Your task to perform on an android device: open a bookmark in the chrome app Image 0: 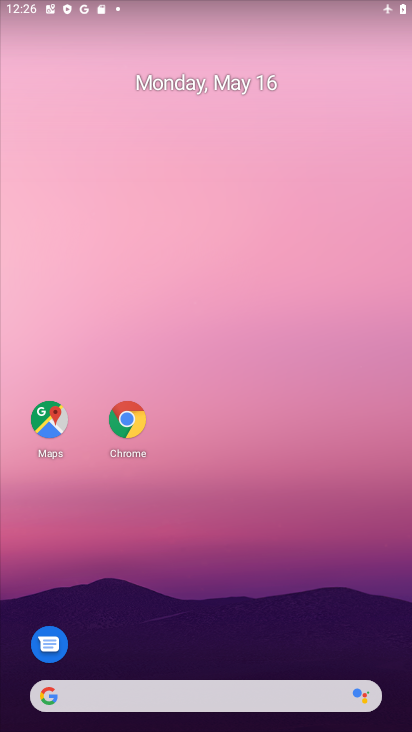
Step 0: drag from (223, 613) to (273, 213)
Your task to perform on an android device: open a bookmark in the chrome app Image 1: 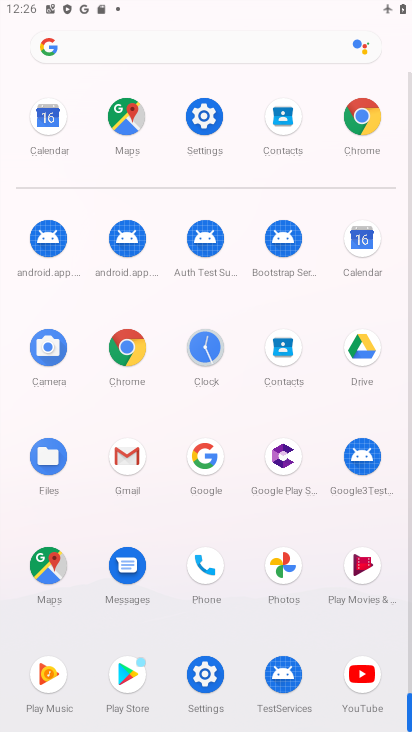
Step 1: click (127, 350)
Your task to perform on an android device: open a bookmark in the chrome app Image 2: 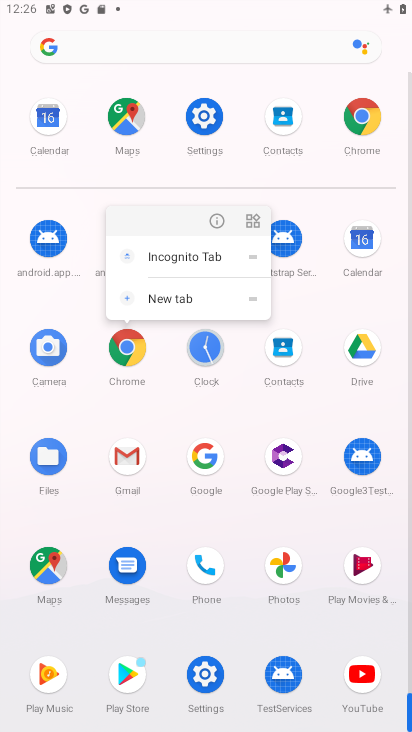
Step 2: click (213, 215)
Your task to perform on an android device: open a bookmark in the chrome app Image 3: 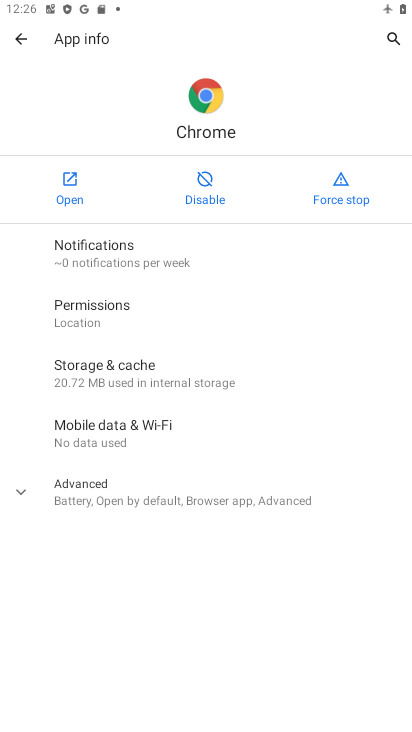
Step 3: click (61, 189)
Your task to perform on an android device: open a bookmark in the chrome app Image 4: 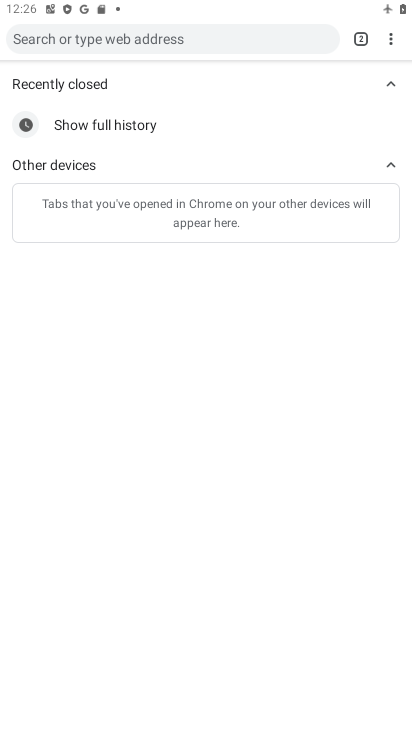
Step 4: task complete